Your task to perform on an android device: Open the Play Movies app and select the watchlist tab. Image 0: 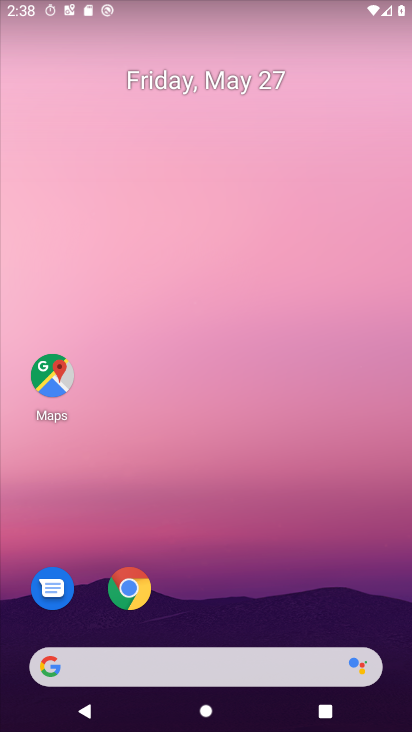
Step 0: drag from (242, 591) to (111, 7)
Your task to perform on an android device: Open the Play Movies app and select the watchlist tab. Image 1: 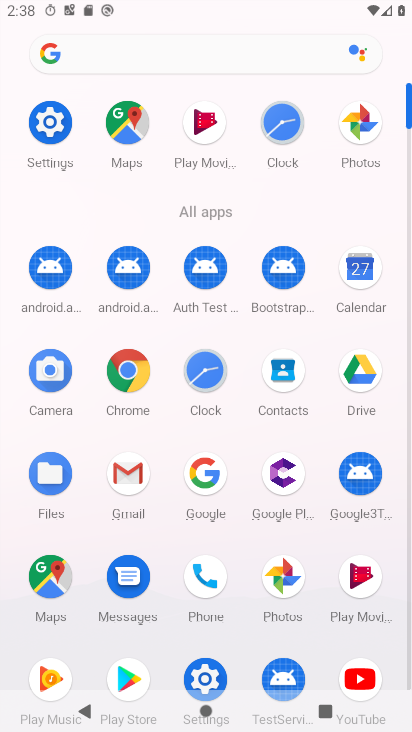
Step 1: click (357, 580)
Your task to perform on an android device: Open the Play Movies app and select the watchlist tab. Image 2: 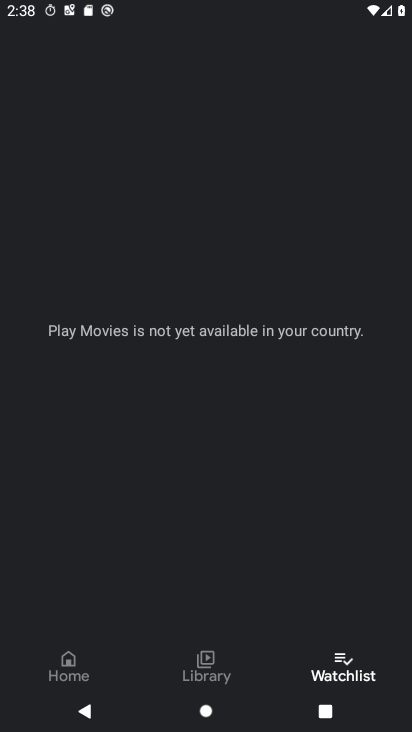
Step 2: task complete